Your task to perform on an android device: create a new album in the google photos Image 0: 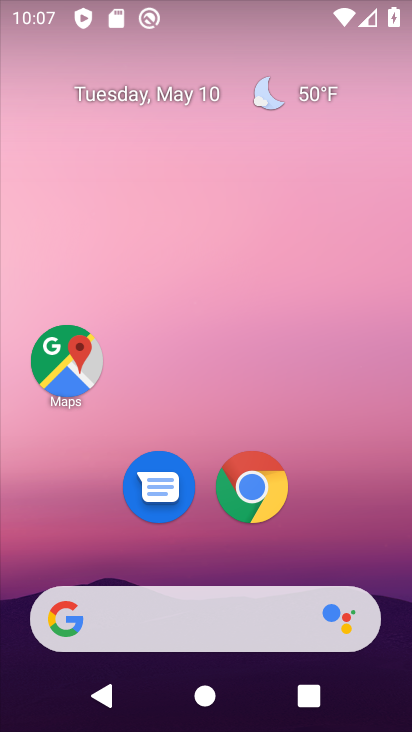
Step 0: drag from (351, 528) to (387, 51)
Your task to perform on an android device: create a new album in the google photos Image 1: 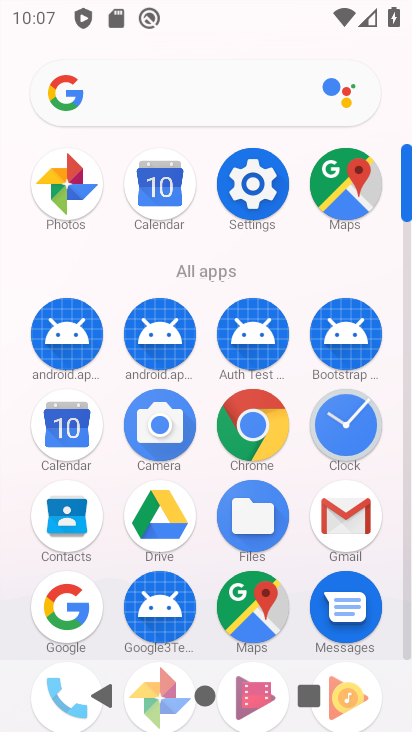
Step 1: click (45, 191)
Your task to perform on an android device: create a new album in the google photos Image 2: 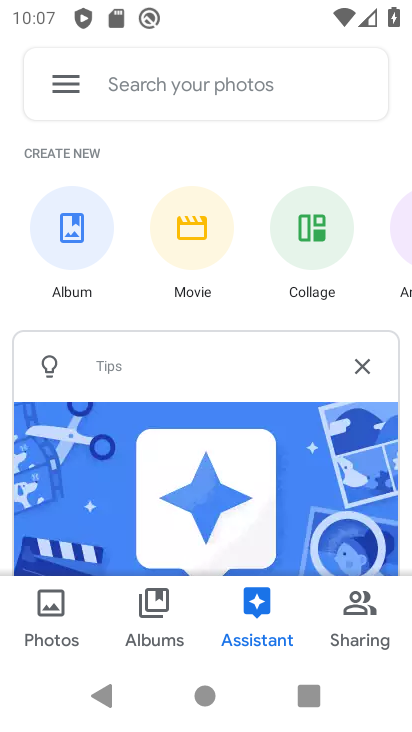
Step 2: click (224, 79)
Your task to perform on an android device: create a new album in the google photos Image 3: 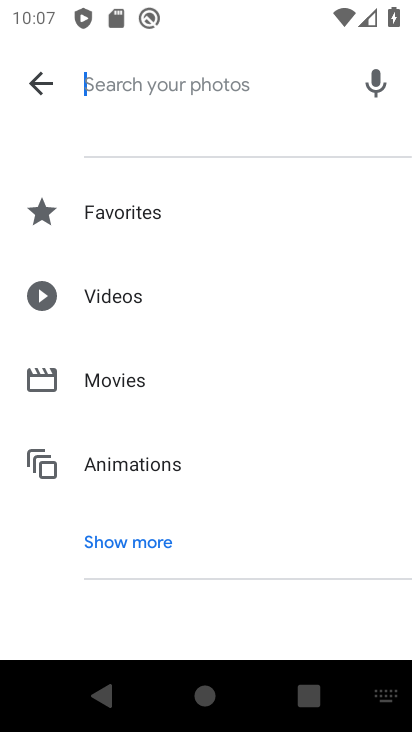
Step 3: click (44, 97)
Your task to perform on an android device: create a new album in the google photos Image 4: 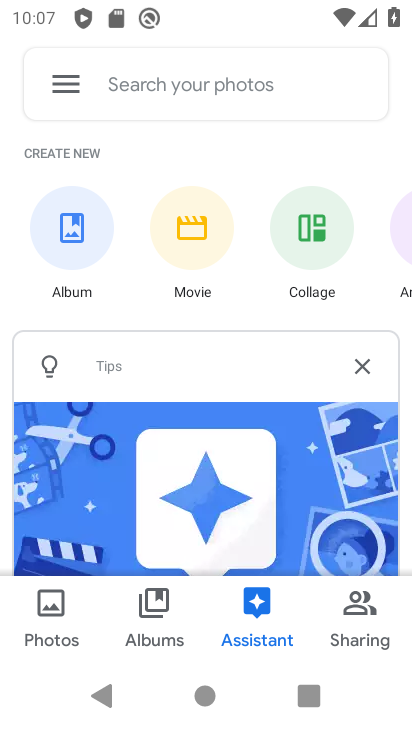
Step 4: click (177, 609)
Your task to perform on an android device: create a new album in the google photos Image 5: 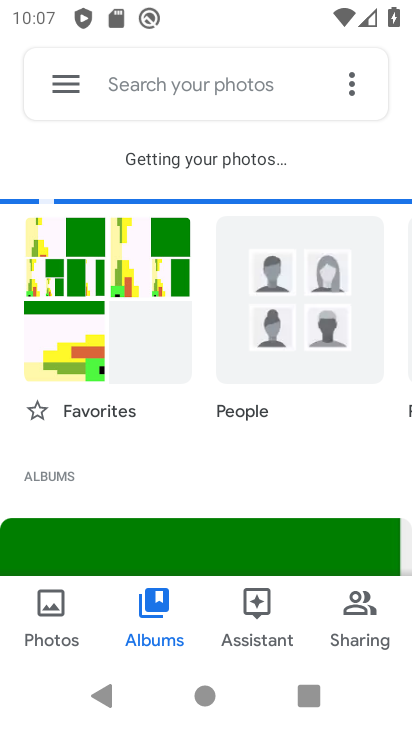
Step 5: drag from (210, 452) to (213, 131)
Your task to perform on an android device: create a new album in the google photos Image 6: 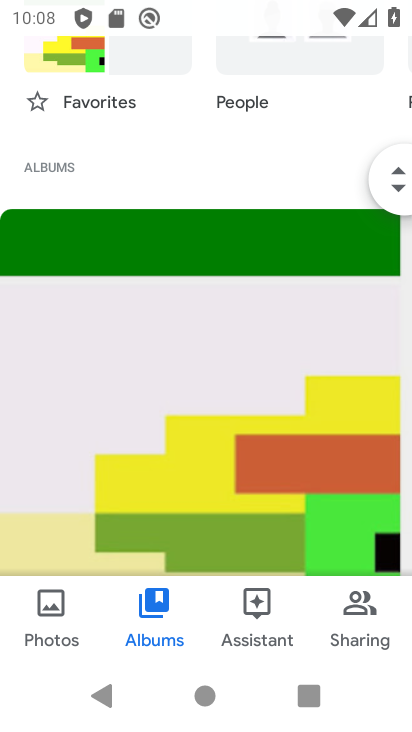
Step 6: drag from (222, 404) to (204, 152)
Your task to perform on an android device: create a new album in the google photos Image 7: 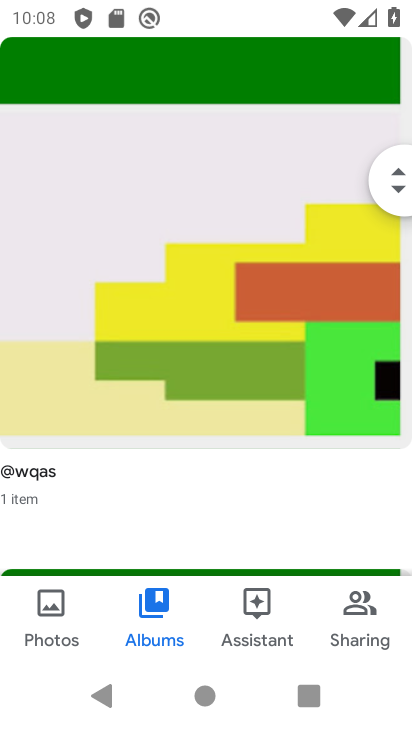
Step 7: drag from (179, 473) to (161, 264)
Your task to perform on an android device: create a new album in the google photos Image 8: 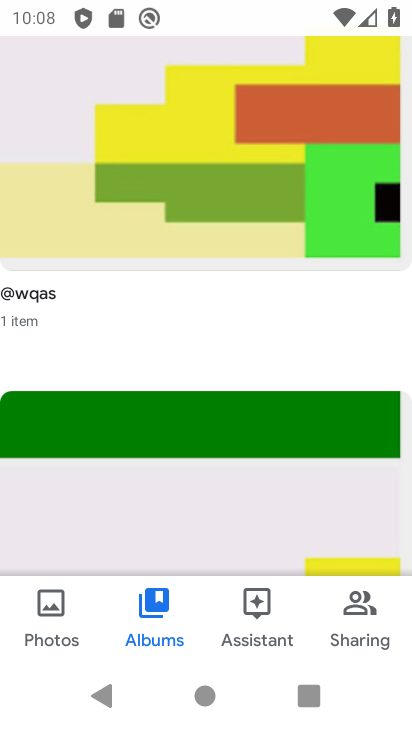
Step 8: drag from (271, 438) to (256, 720)
Your task to perform on an android device: create a new album in the google photos Image 9: 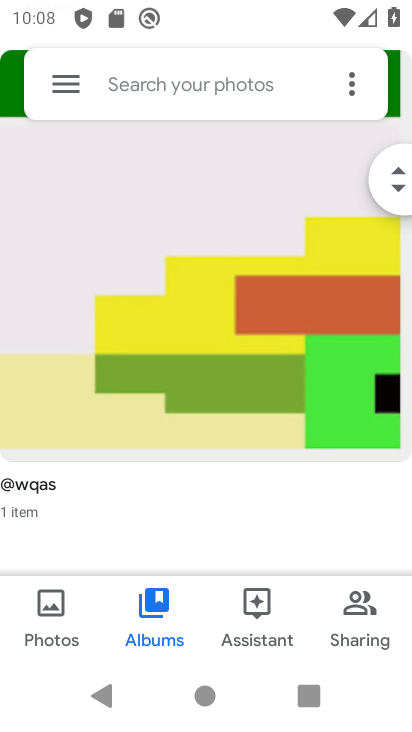
Step 9: drag from (234, 479) to (263, 720)
Your task to perform on an android device: create a new album in the google photos Image 10: 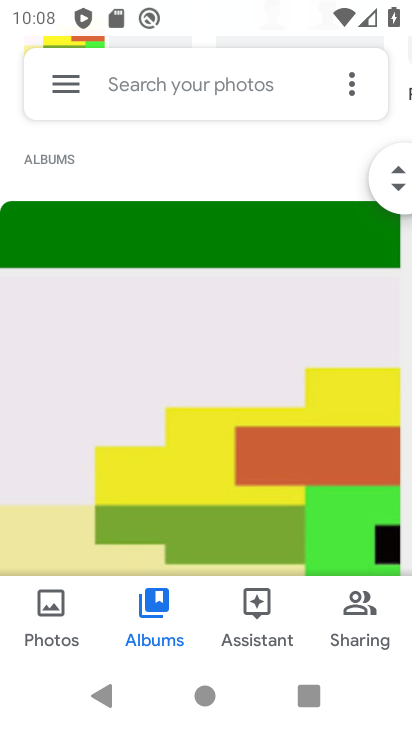
Step 10: click (349, 94)
Your task to perform on an android device: create a new album in the google photos Image 11: 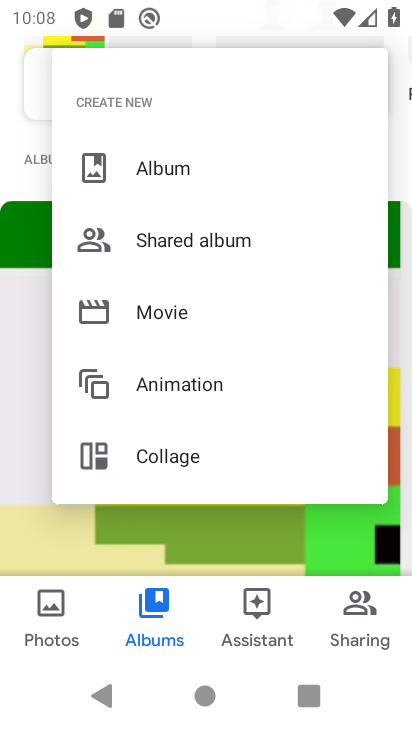
Step 11: click (137, 190)
Your task to perform on an android device: create a new album in the google photos Image 12: 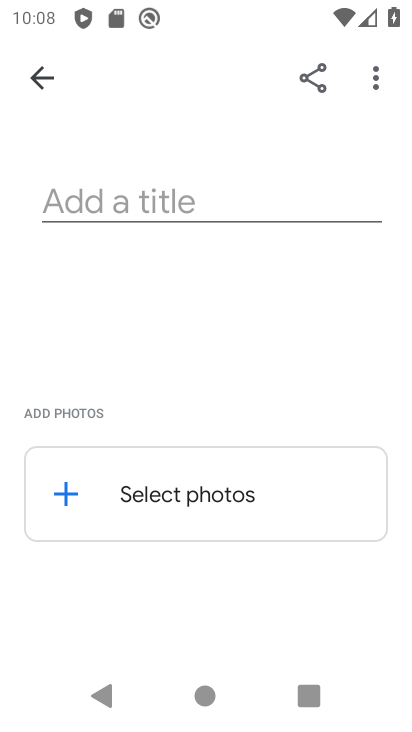
Step 12: click (143, 203)
Your task to perform on an android device: create a new album in the google photos Image 13: 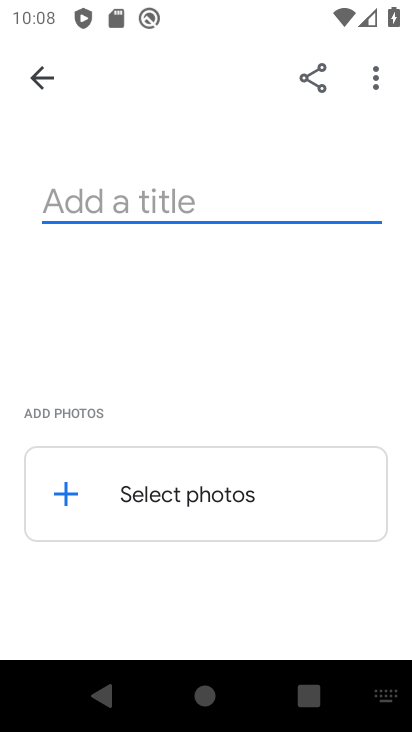
Step 13: type "sf"
Your task to perform on an android device: create a new album in the google photos Image 14: 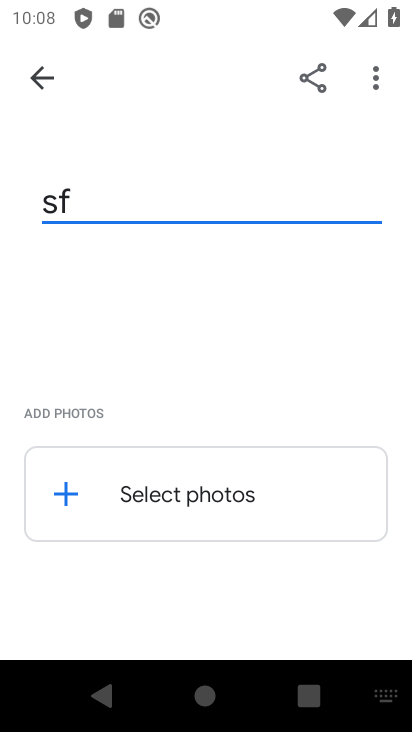
Step 14: click (61, 493)
Your task to perform on an android device: create a new album in the google photos Image 15: 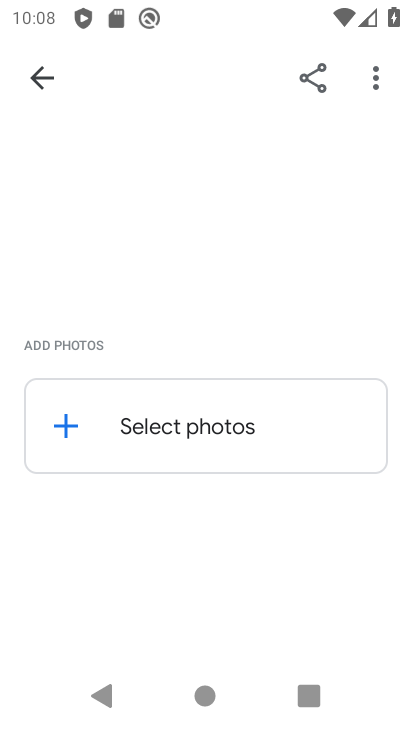
Step 15: click (82, 427)
Your task to perform on an android device: create a new album in the google photos Image 16: 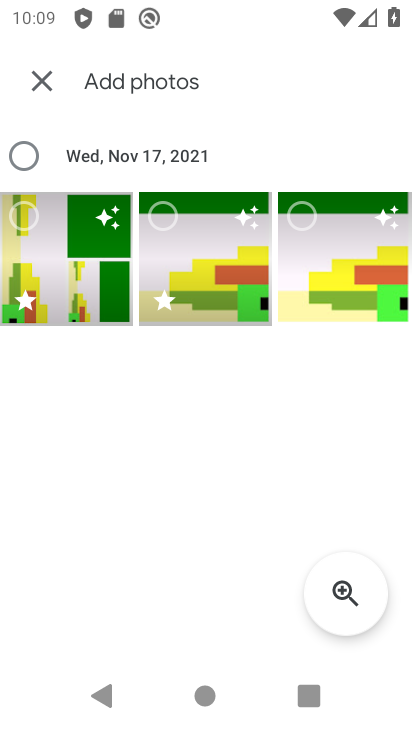
Step 16: click (28, 156)
Your task to perform on an android device: create a new album in the google photos Image 17: 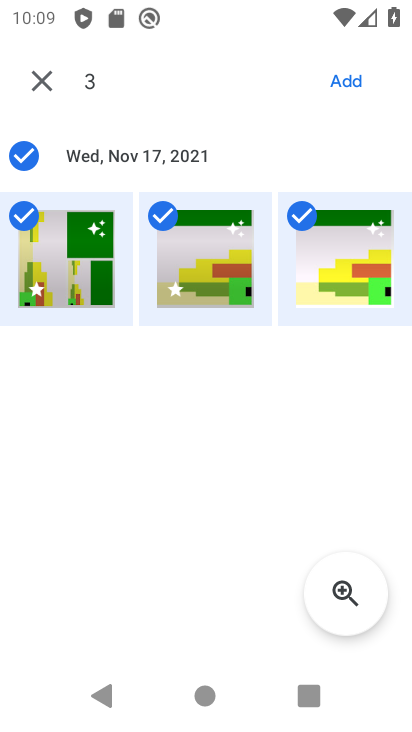
Step 17: click (335, 84)
Your task to perform on an android device: create a new album in the google photos Image 18: 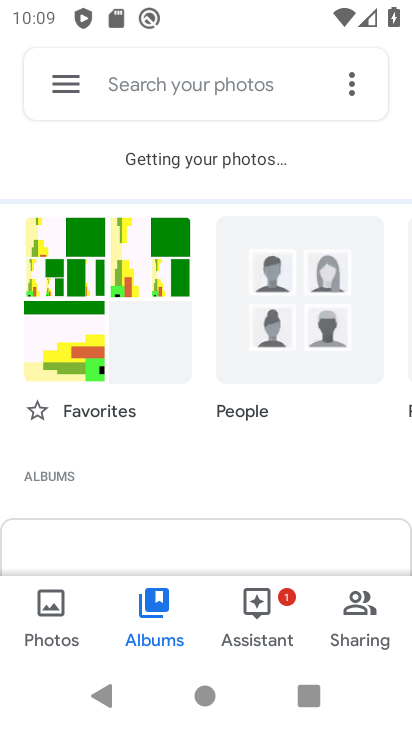
Step 18: task complete